Your task to perform on an android device: open app "DoorDash - Dasher" Image 0: 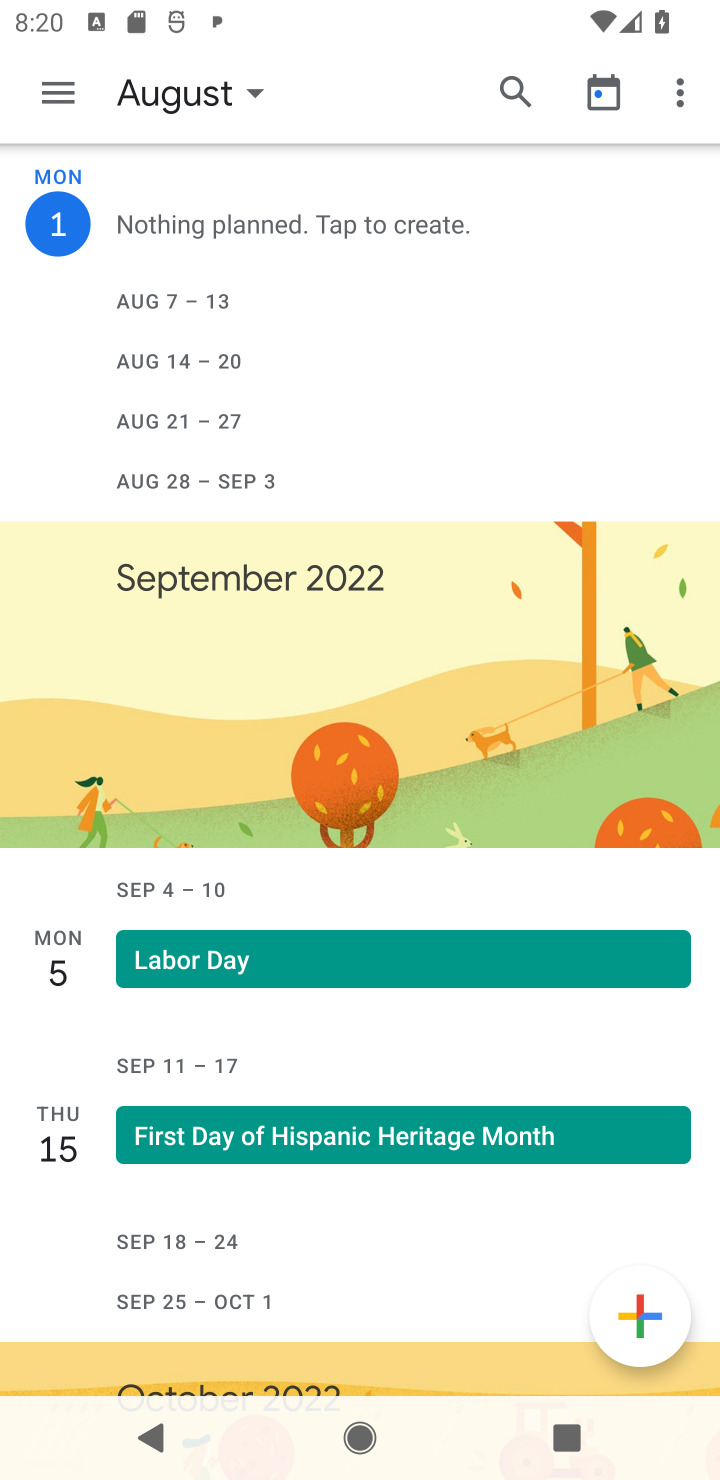
Step 0: press home button
Your task to perform on an android device: open app "DoorDash - Dasher" Image 1: 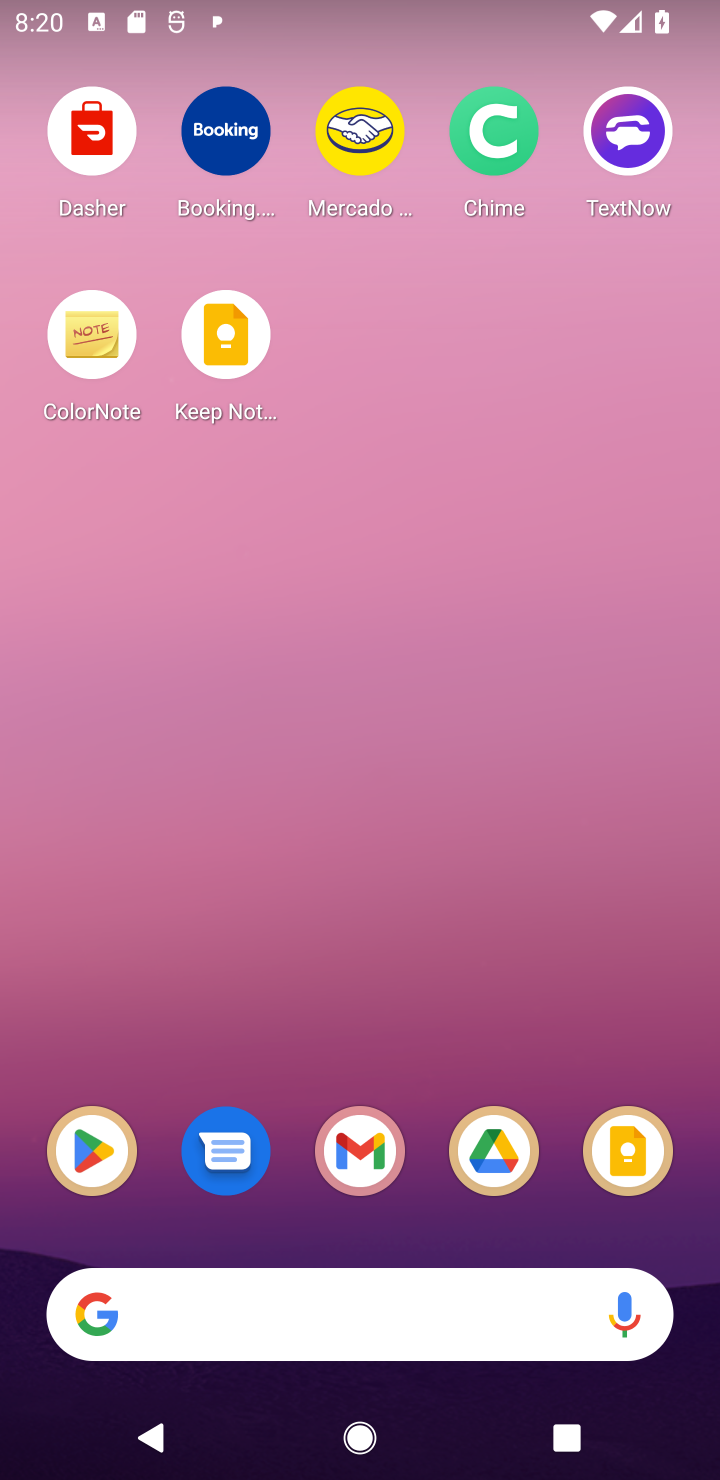
Step 1: click (111, 1166)
Your task to perform on an android device: open app "DoorDash - Dasher" Image 2: 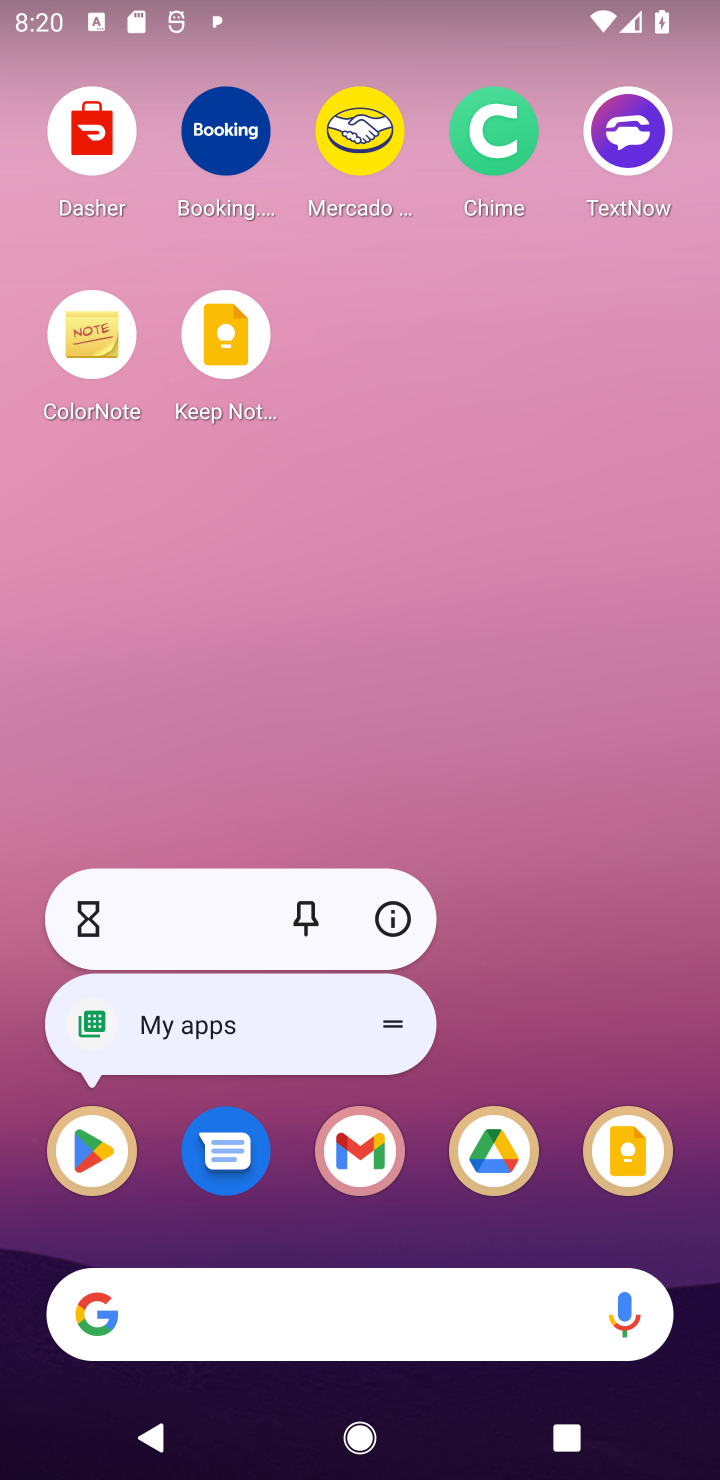
Step 2: click (97, 1151)
Your task to perform on an android device: open app "DoorDash - Dasher" Image 3: 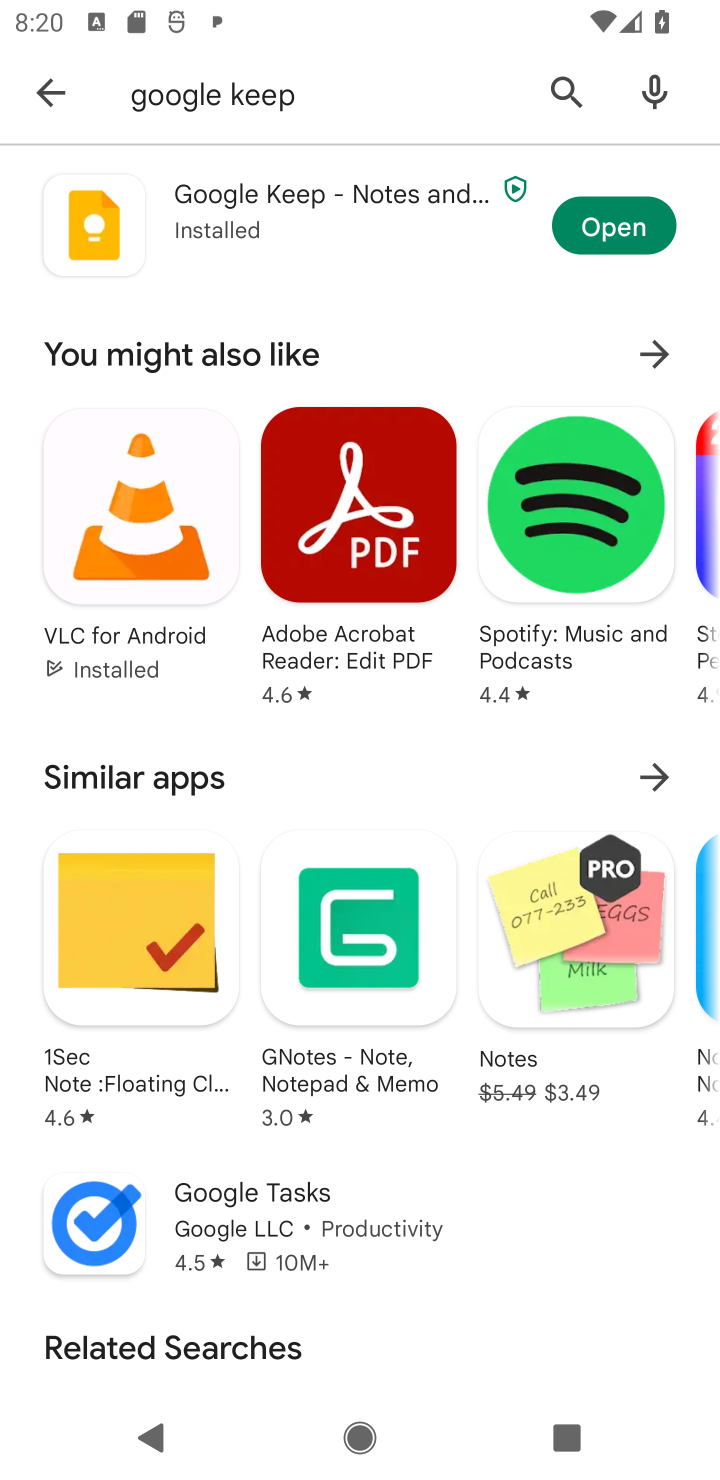
Step 3: click (551, 90)
Your task to perform on an android device: open app "DoorDash - Dasher" Image 4: 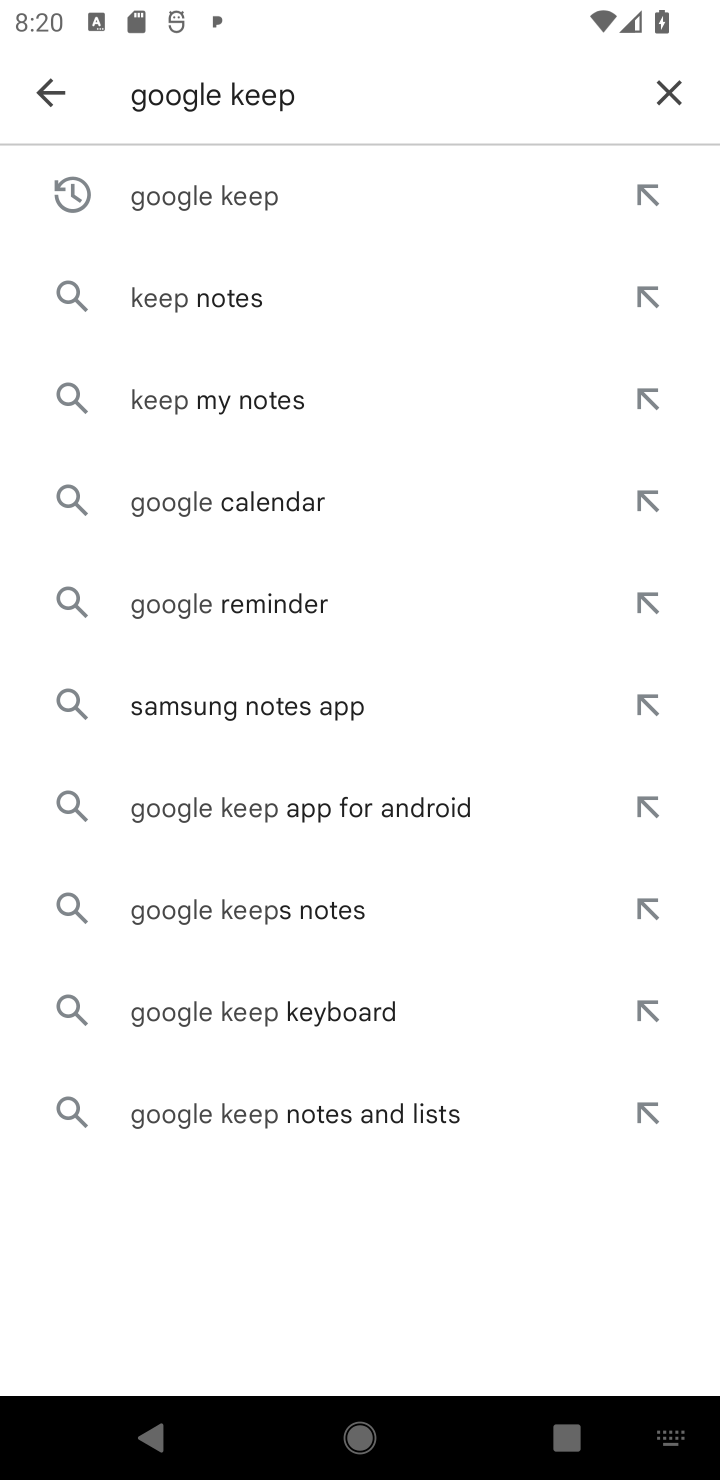
Step 4: click (665, 102)
Your task to perform on an android device: open app "DoorDash - Dasher" Image 5: 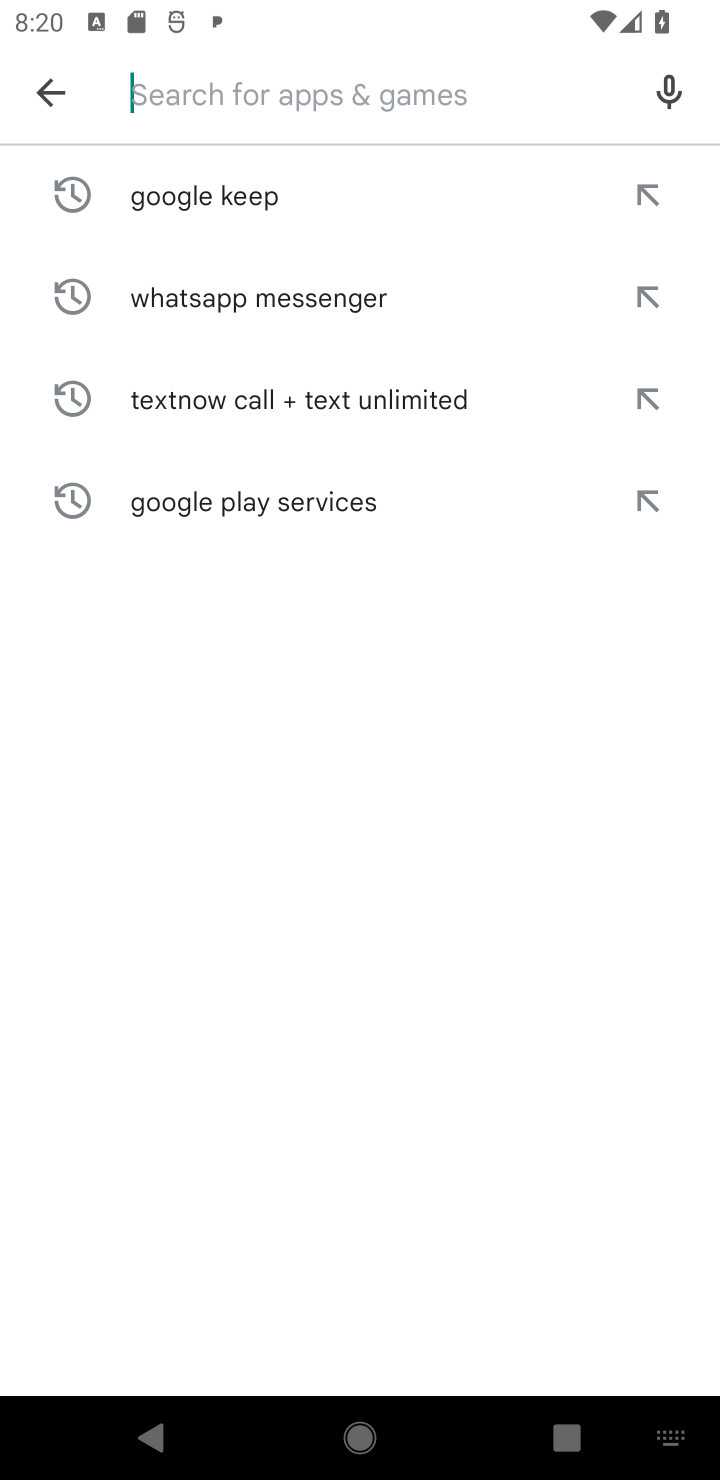
Step 5: type "DoorDash - Dasher"
Your task to perform on an android device: open app "DoorDash - Dasher" Image 6: 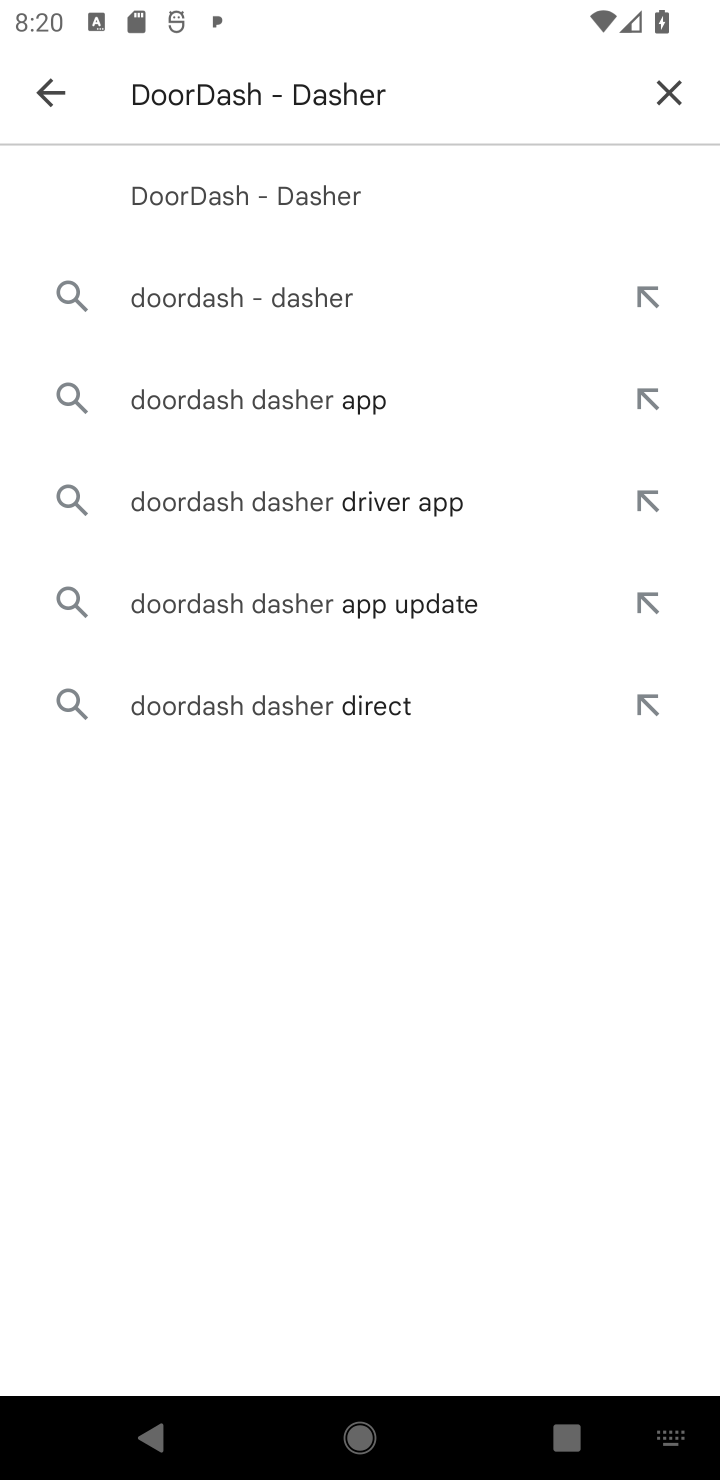
Step 6: click (294, 207)
Your task to perform on an android device: open app "DoorDash - Dasher" Image 7: 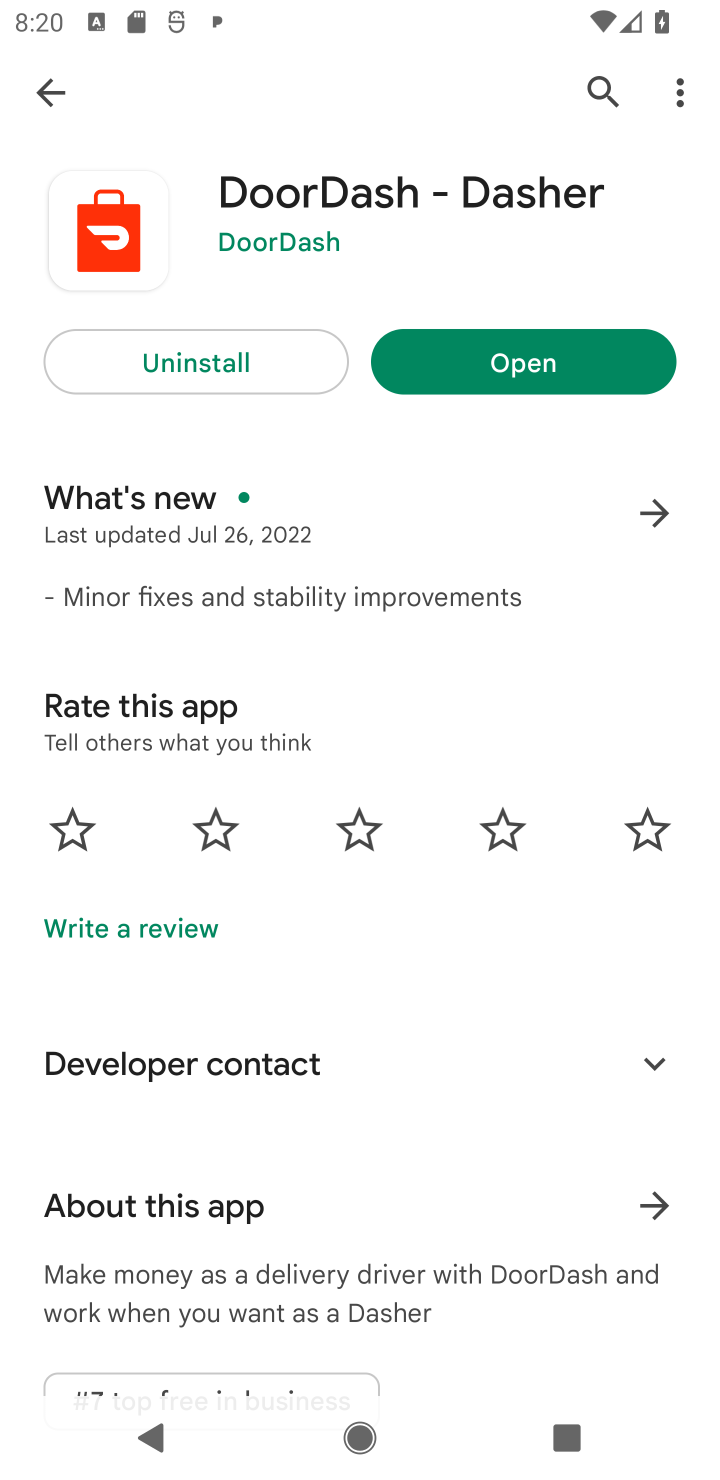
Step 7: click (480, 392)
Your task to perform on an android device: open app "DoorDash - Dasher" Image 8: 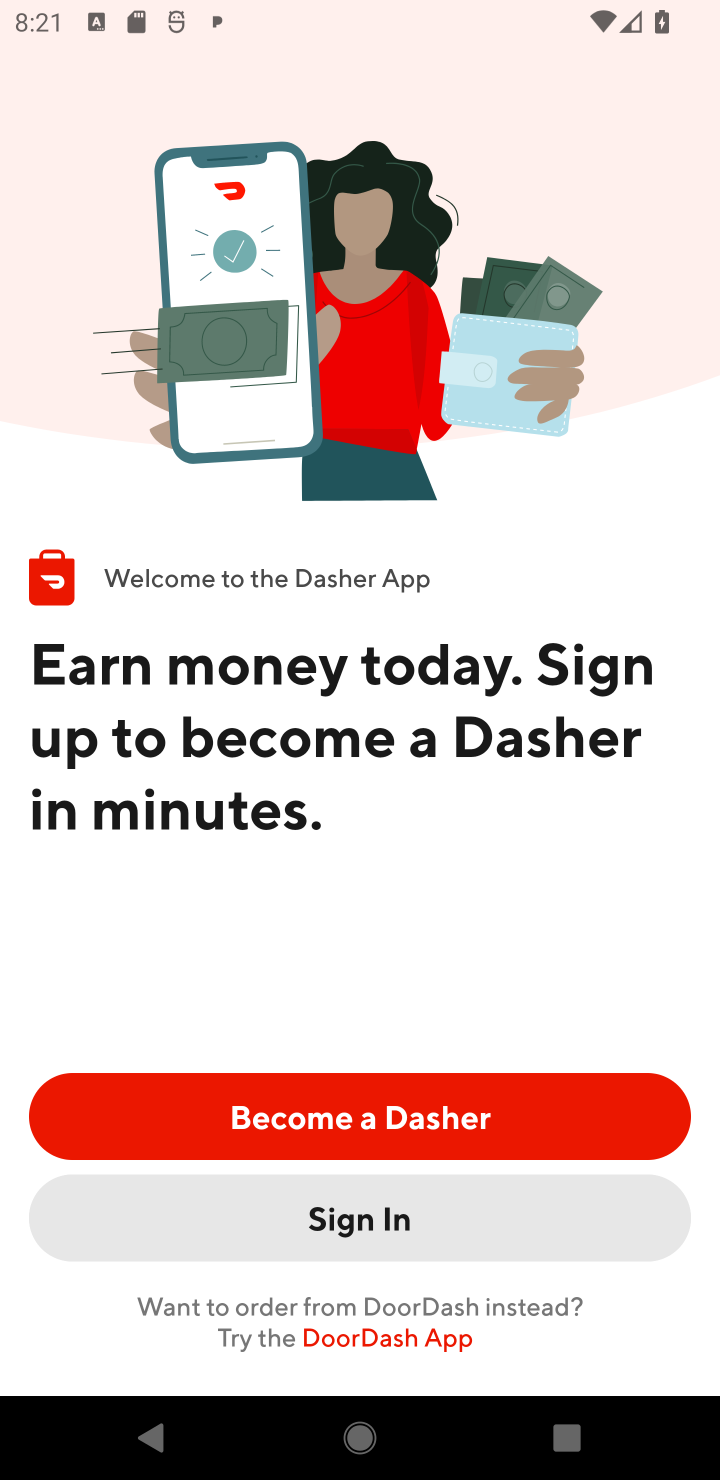
Step 8: task complete